Your task to perform on an android device: Open ESPN.com Image 0: 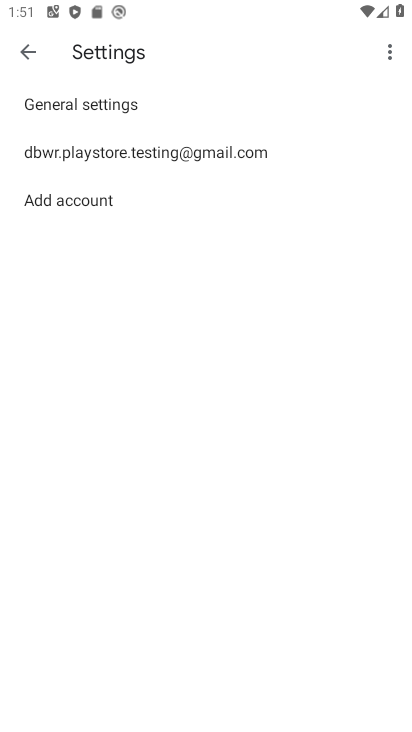
Step 0: press home button
Your task to perform on an android device: Open ESPN.com Image 1: 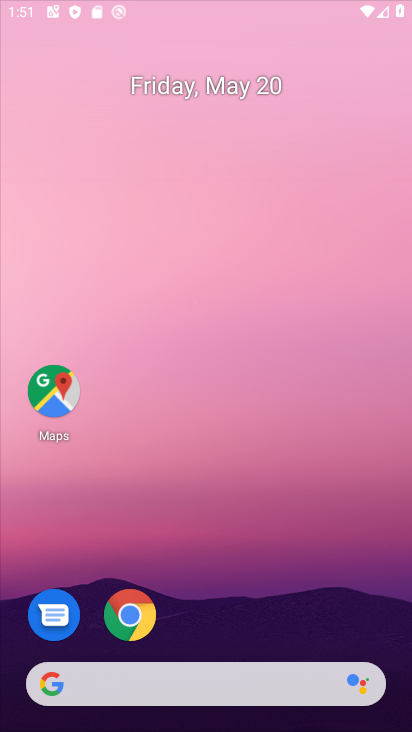
Step 1: drag from (192, 614) to (242, 316)
Your task to perform on an android device: Open ESPN.com Image 2: 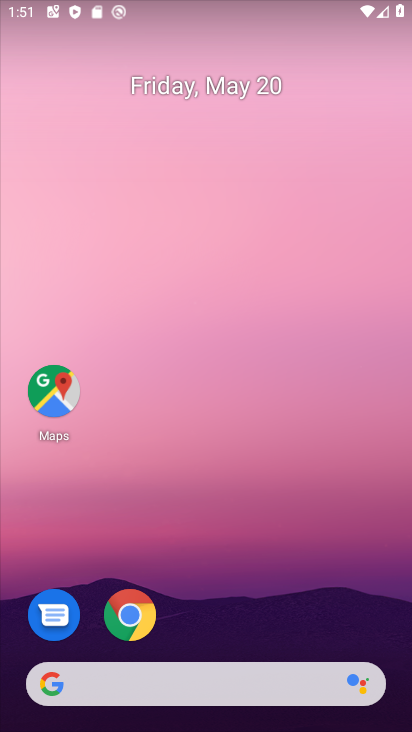
Step 2: drag from (231, 636) to (262, 344)
Your task to perform on an android device: Open ESPN.com Image 3: 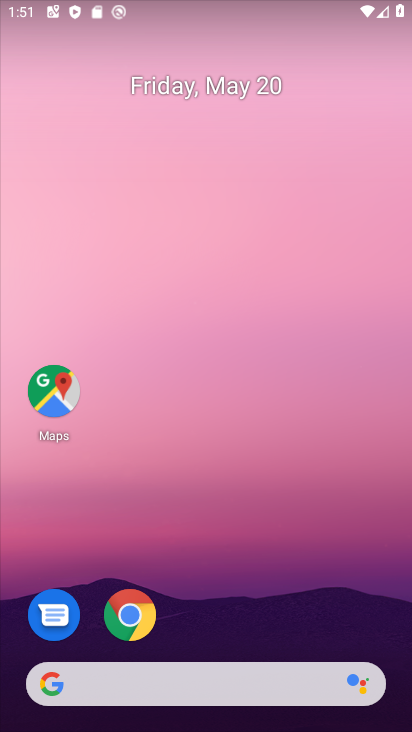
Step 3: drag from (207, 673) to (258, 319)
Your task to perform on an android device: Open ESPN.com Image 4: 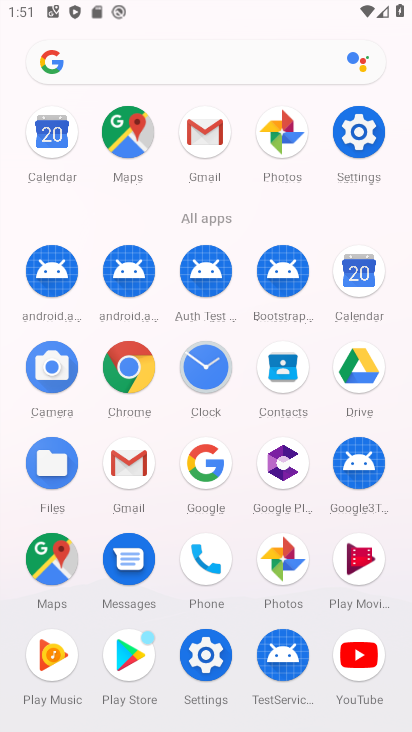
Step 4: drag from (245, 598) to (245, 469)
Your task to perform on an android device: Open ESPN.com Image 5: 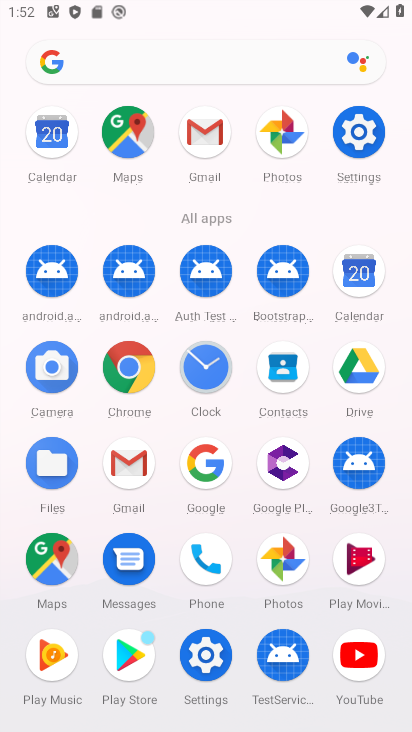
Step 5: click (133, 363)
Your task to perform on an android device: Open ESPN.com Image 6: 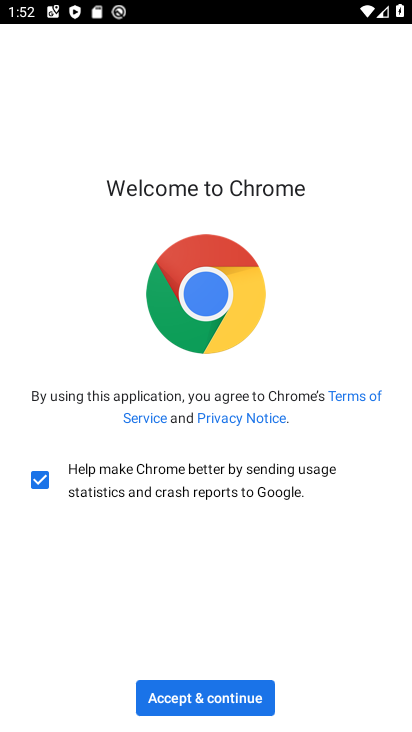
Step 6: click (203, 678)
Your task to perform on an android device: Open ESPN.com Image 7: 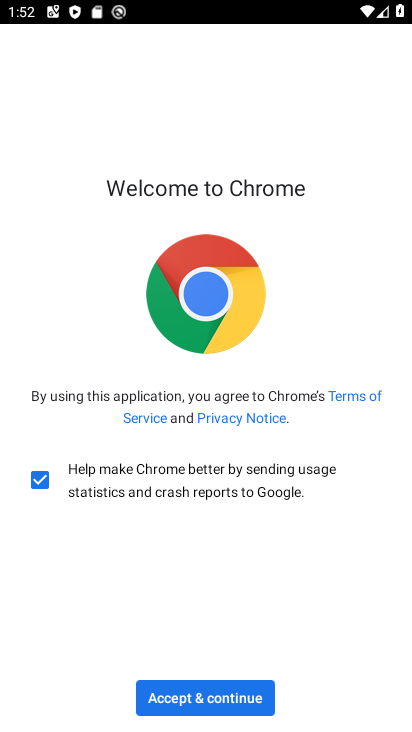
Step 7: click (203, 680)
Your task to perform on an android device: Open ESPN.com Image 8: 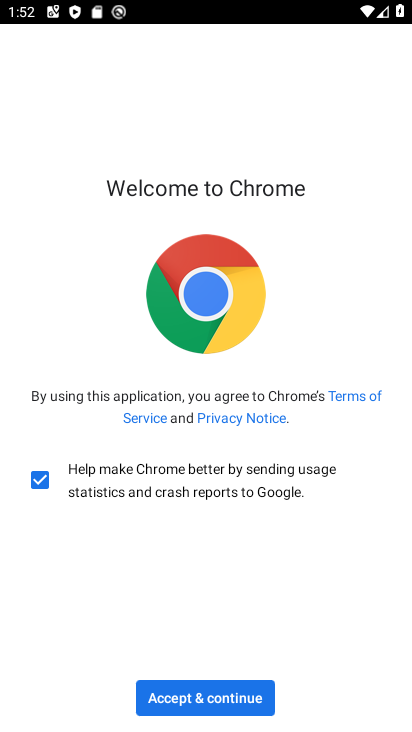
Step 8: click (202, 695)
Your task to perform on an android device: Open ESPN.com Image 9: 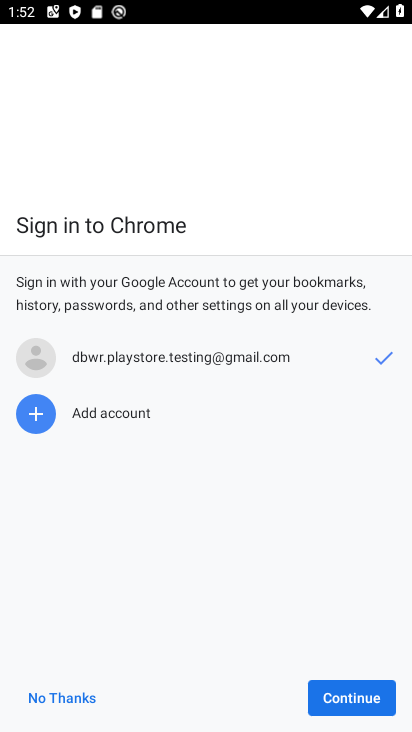
Step 9: click (202, 695)
Your task to perform on an android device: Open ESPN.com Image 10: 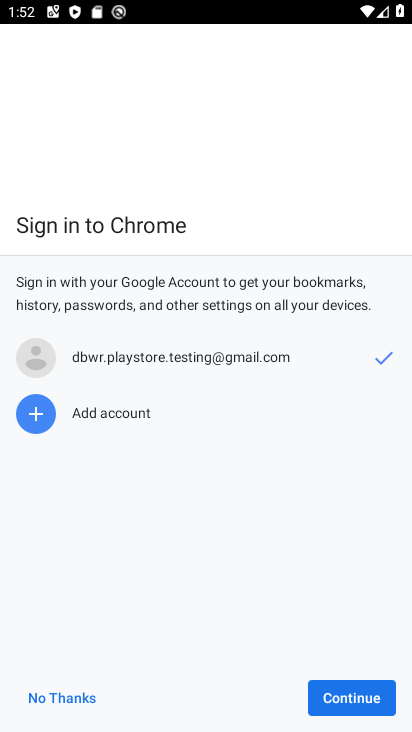
Step 10: click (368, 681)
Your task to perform on an android device: Open ESPN.com Image 11: 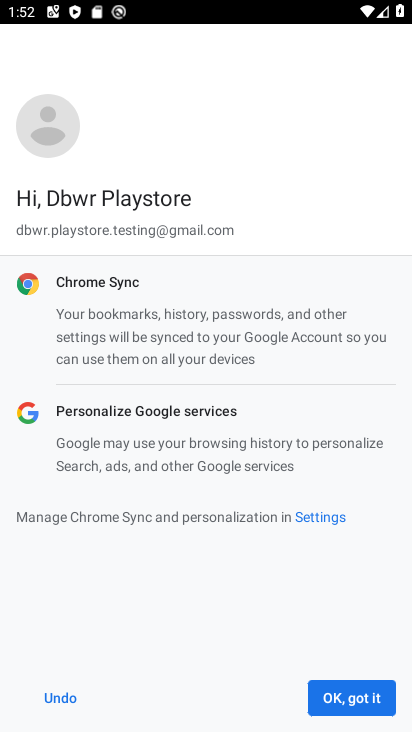
Step 11: click (351, 688)
Your task to perform on an android device: Open ESPN.com Image 12: 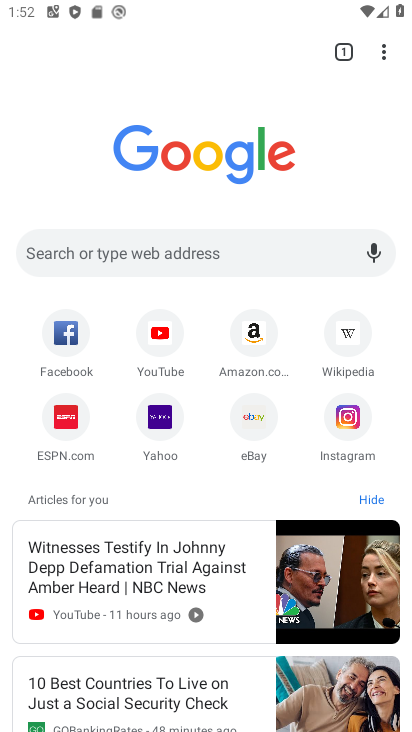
Step 12: click (46, 422)
Your task to perform on an android device: Open ESPN.com Image 13: 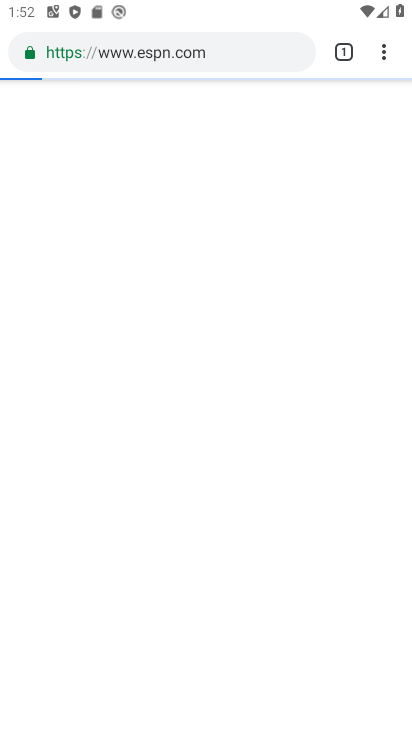
Step 13: task complete